Your task to perform on an android device: Clear the shopping cart on amazon. Image 0: 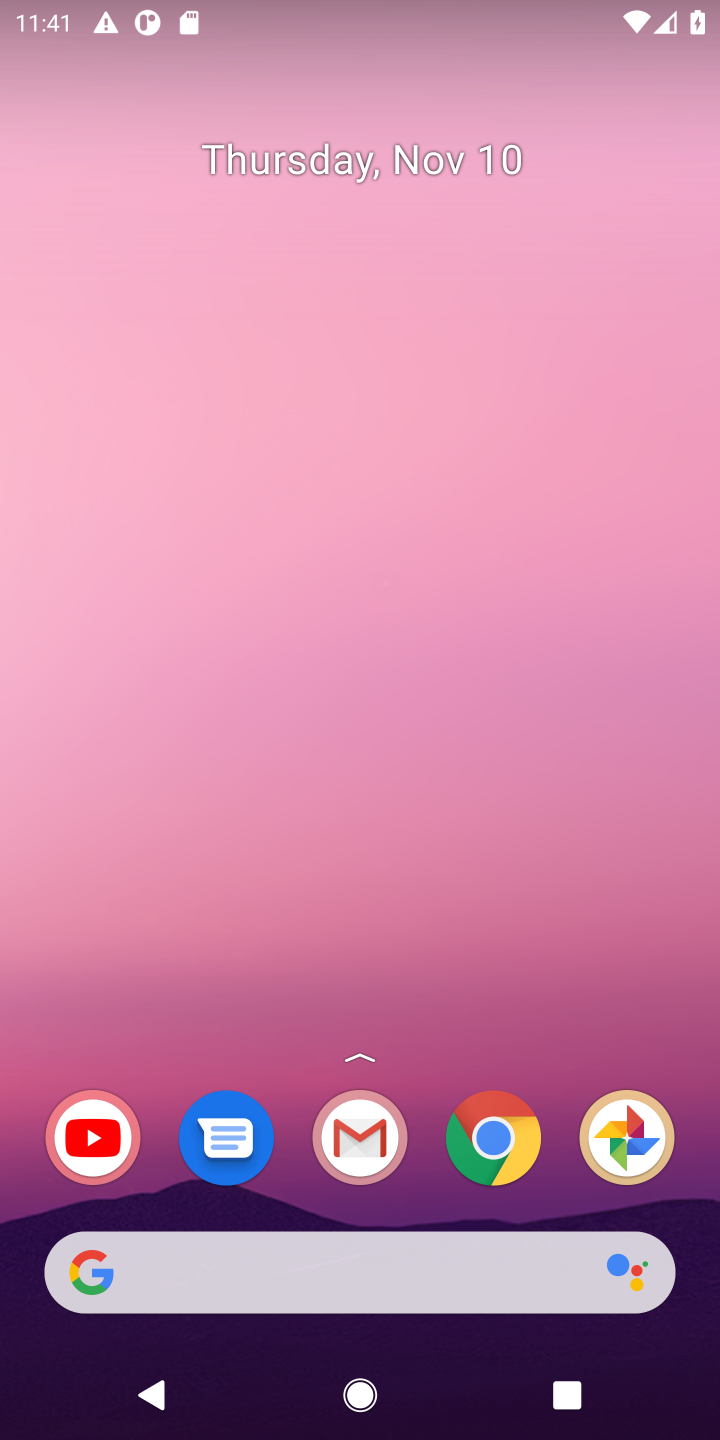
Step 0: click (500, 1145)
Your task to perform on an android device: Clear the shopping cart on amazon. Image 1: 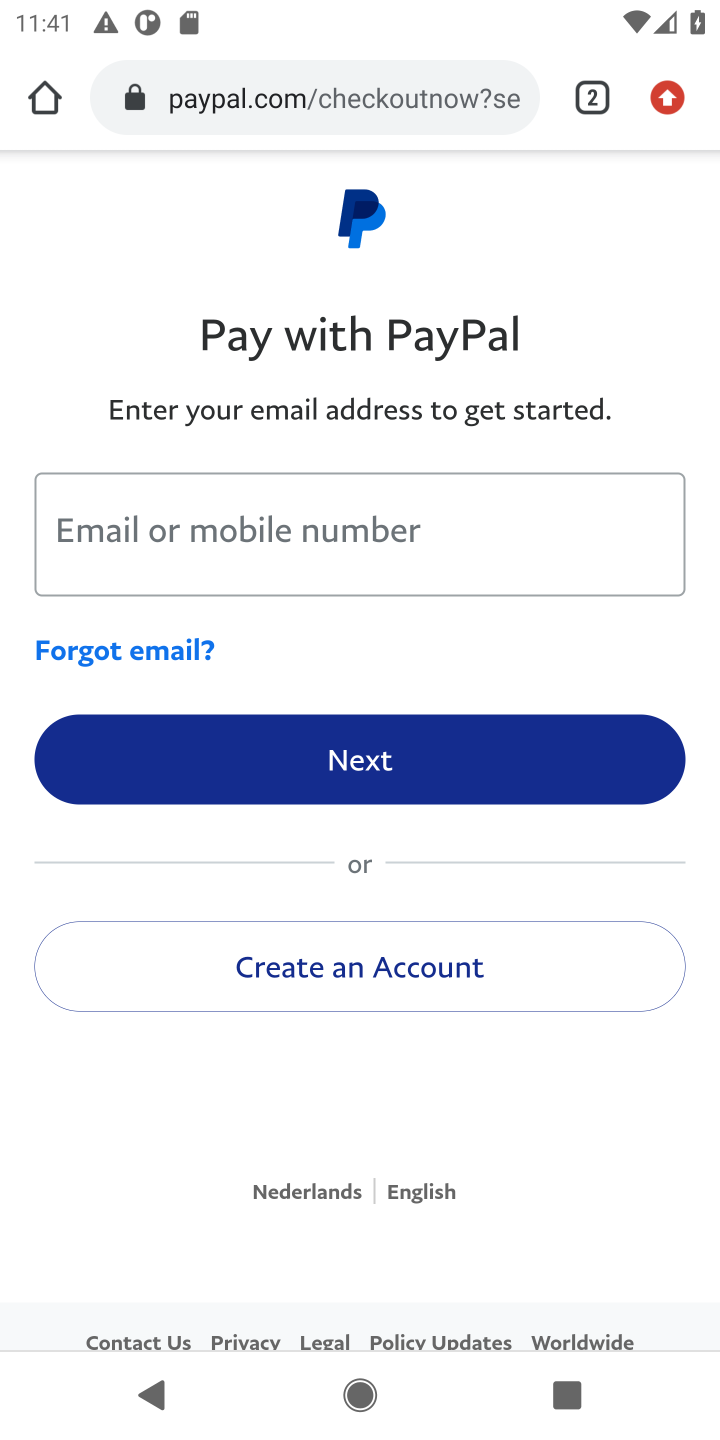
Step 1: click (586, 99)
Your task to perform on an android device: Clear the shopping cart on amazon. Image 2: 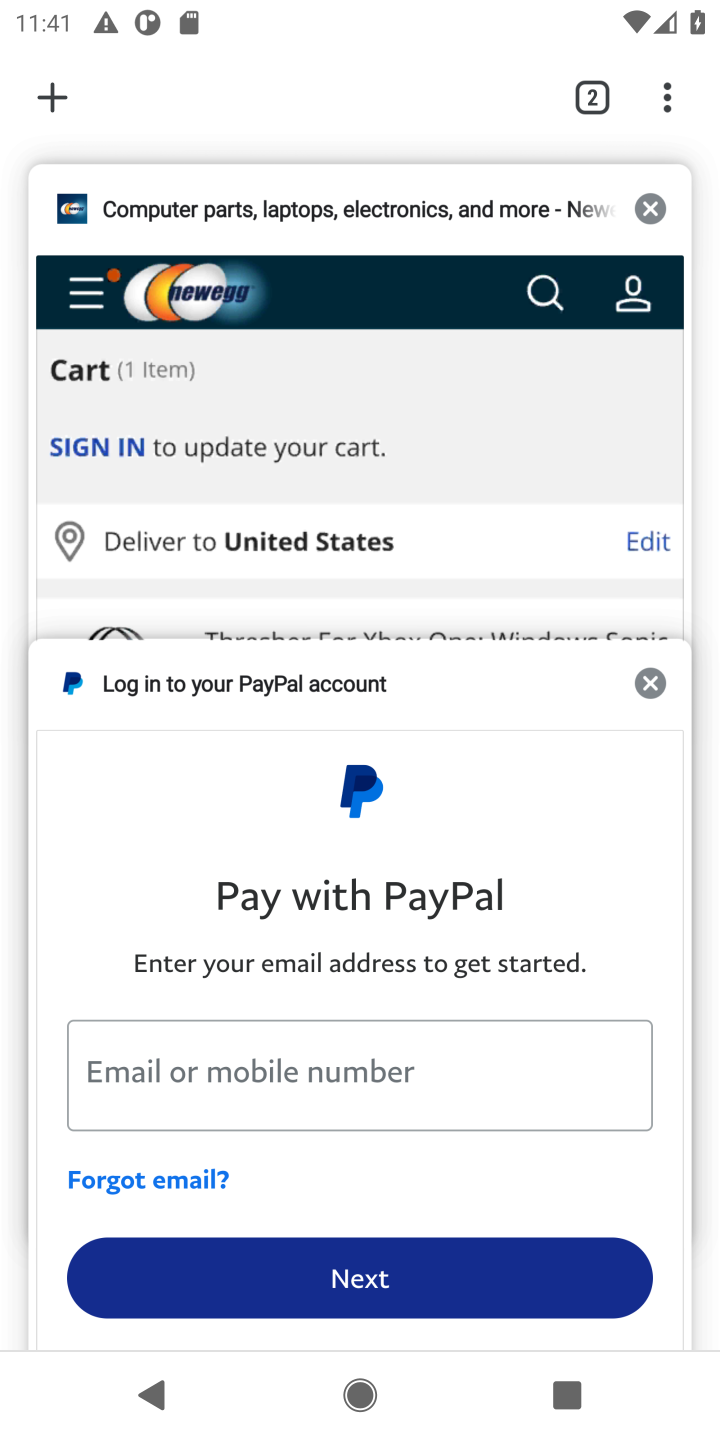
Step 2: click (48, 100)
Your task to perform on an android device: Clear the shopping cart on amazon. Image 3: 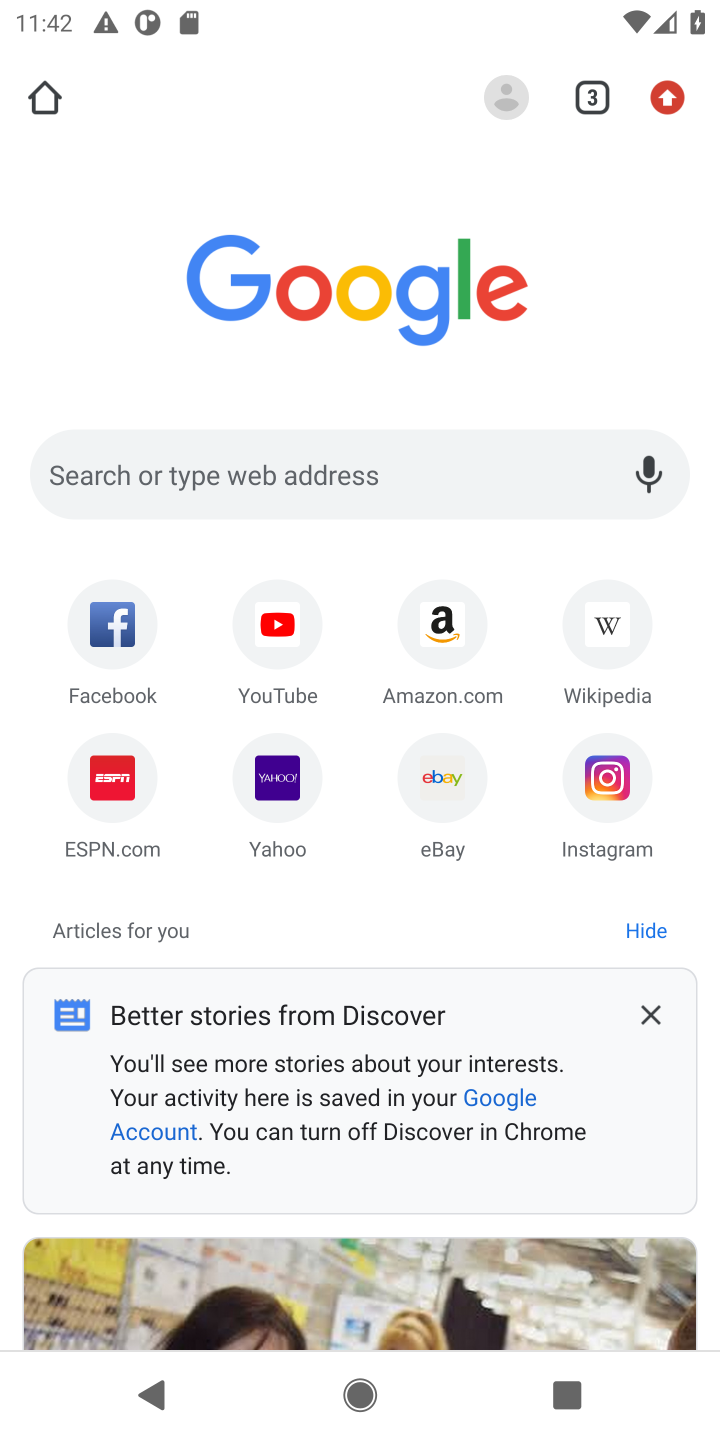
Step 3: click (445, 634)
Your task to perform on an android device: Clear the shopping cart on amazon. Image 4: 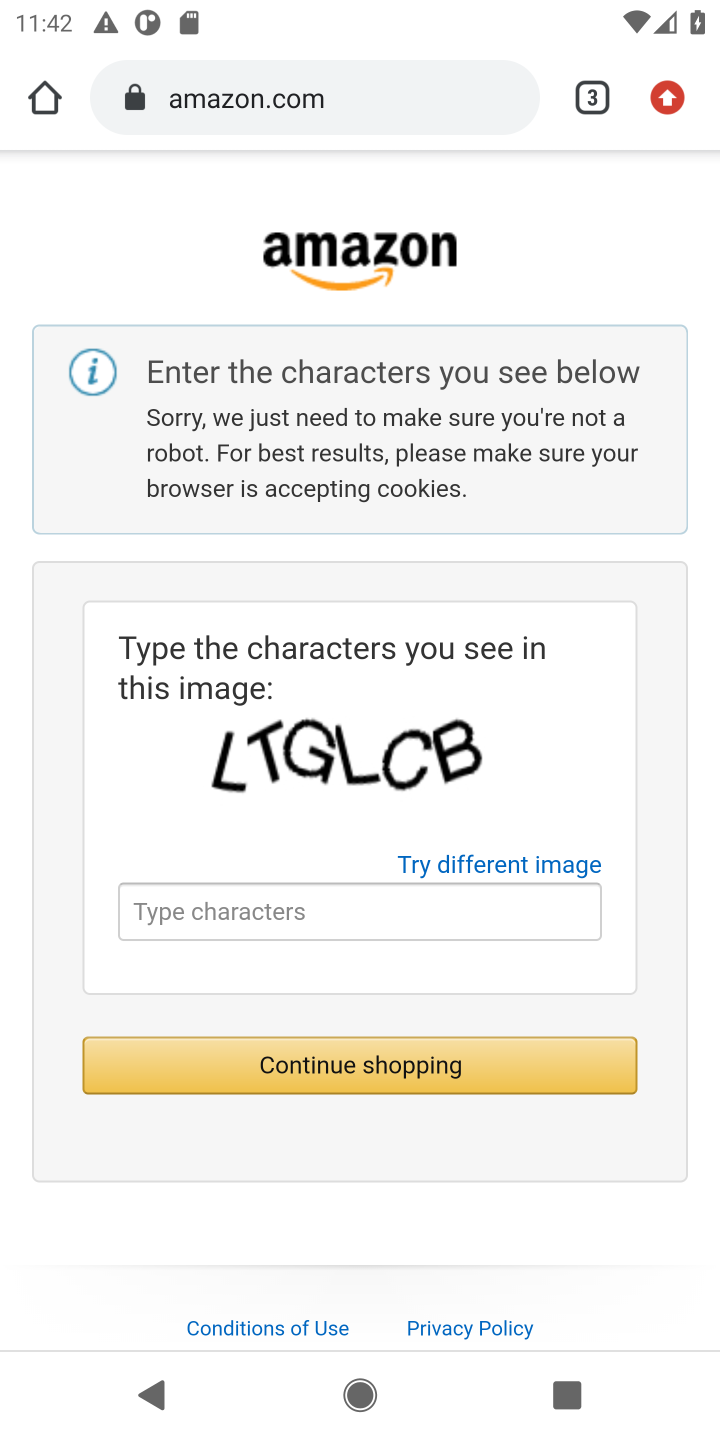
Step 4: click (429, 913)
Your task to perform on an android device: Clear the shopping cart on amazon. Image 5: 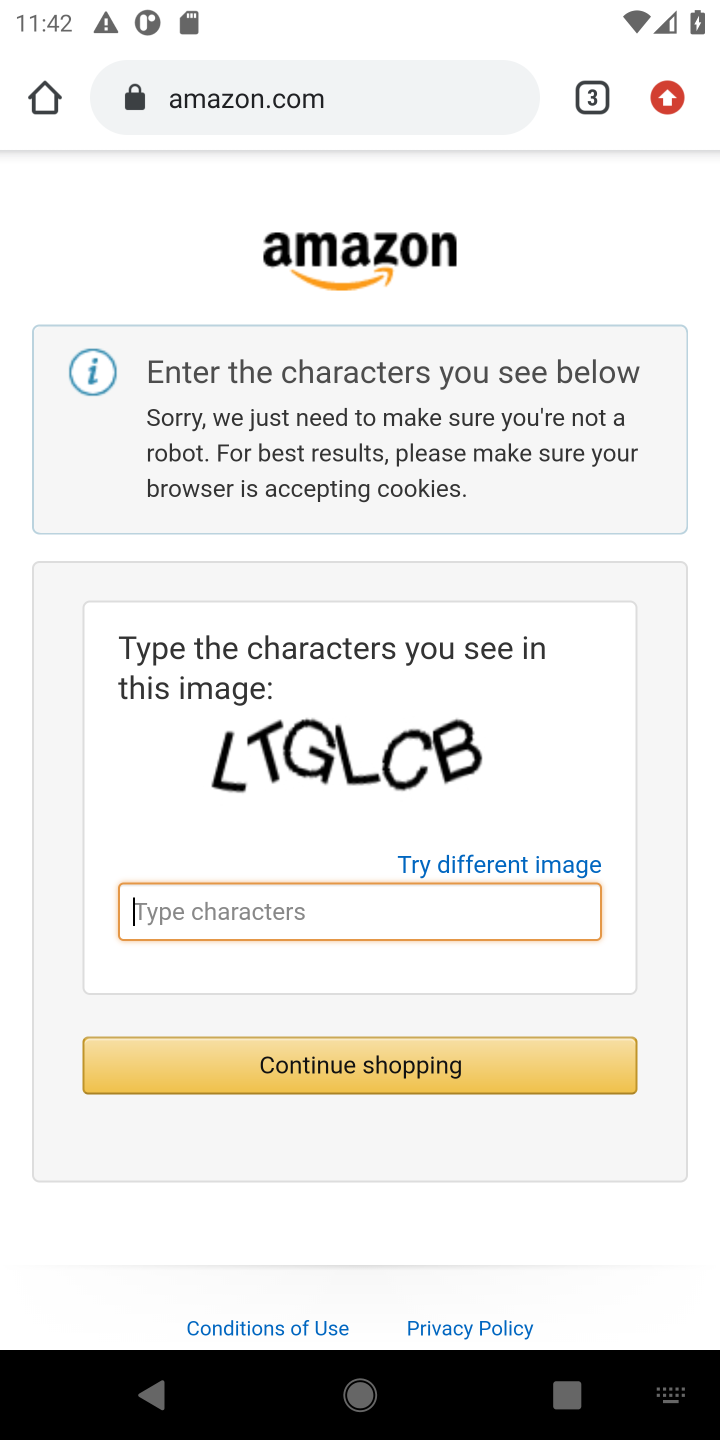
Step 5: type "LTGLCB"
Your task to perform on an android device: Clear the shopping cart on amazon. Image 6: 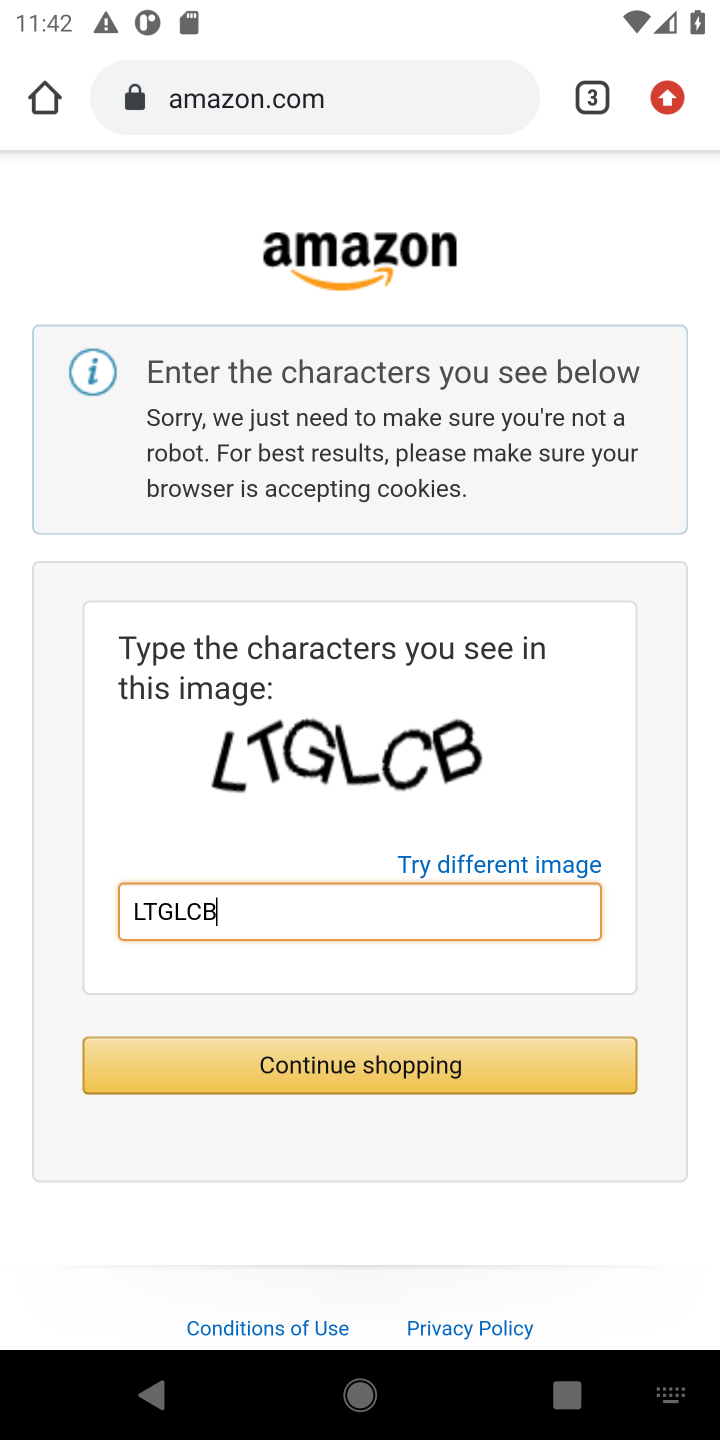
Step 6: click (394, 1082)
Your task to perform on an android device: Clear the shopping cart on amazon. Image 7: 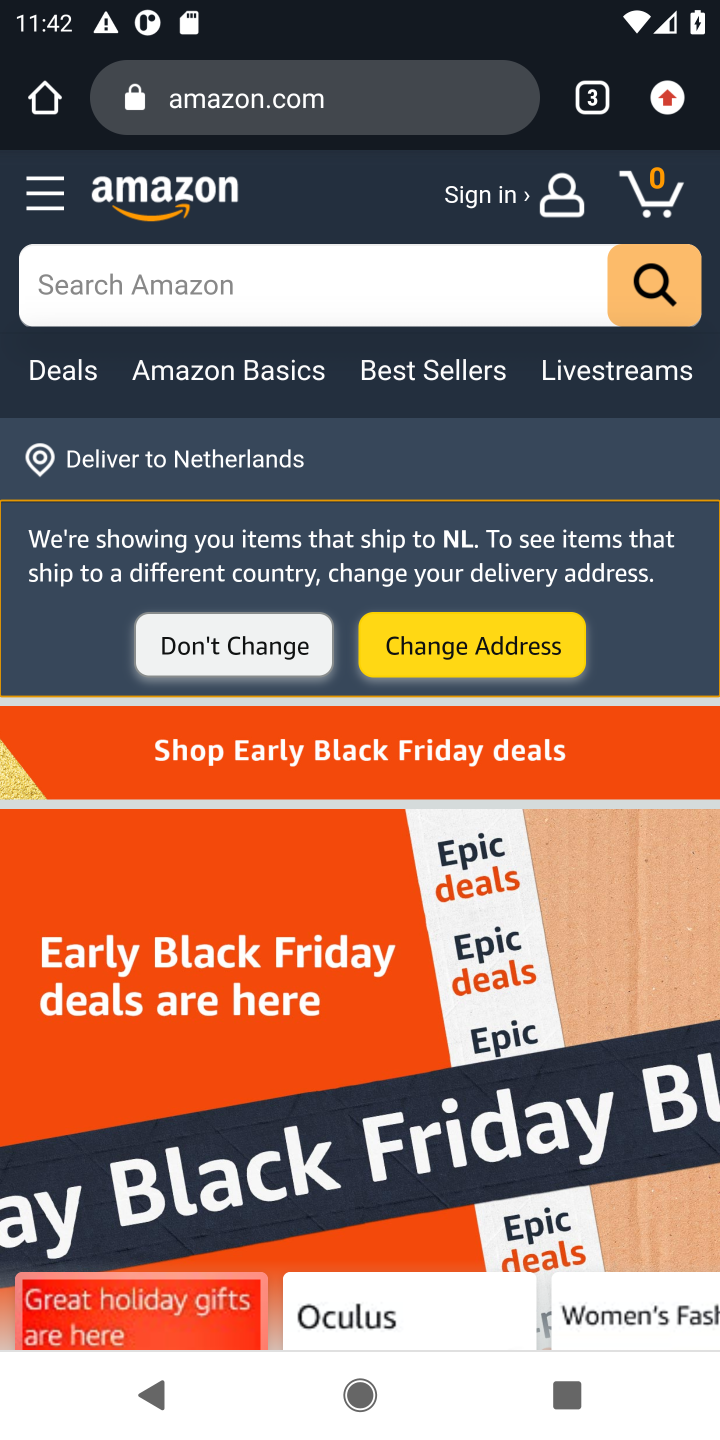
Step 7: task complete